Your task to perform on an android device: open device folders in google photos Image 0: 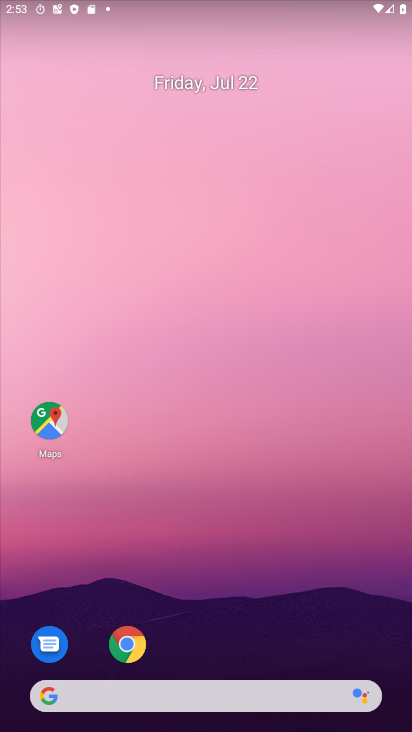
Step 0: press home button
Your task to perform on an android device: open device folders in google photos Image 1: 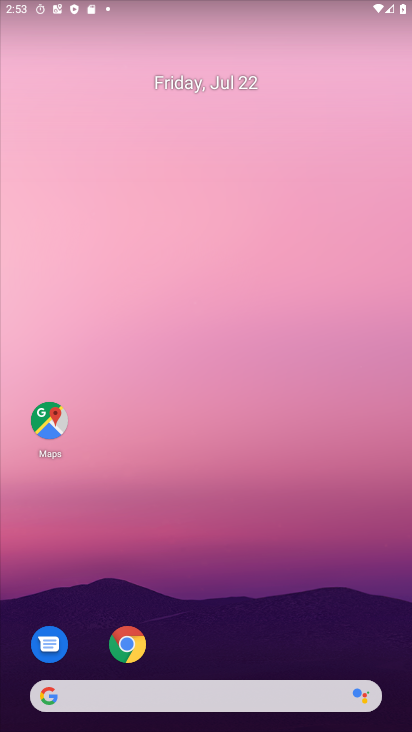
Step 1: drag from (233, 650) to (305, 96)
Your task to perform on an android device: open device folders in google photos Image 2: 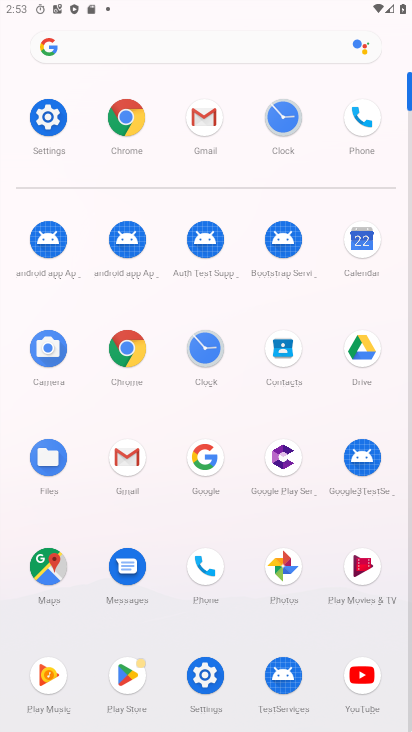
Step 2: click (281, 579)
Your task to perform on an android device: open device folders in google photos Image 3: 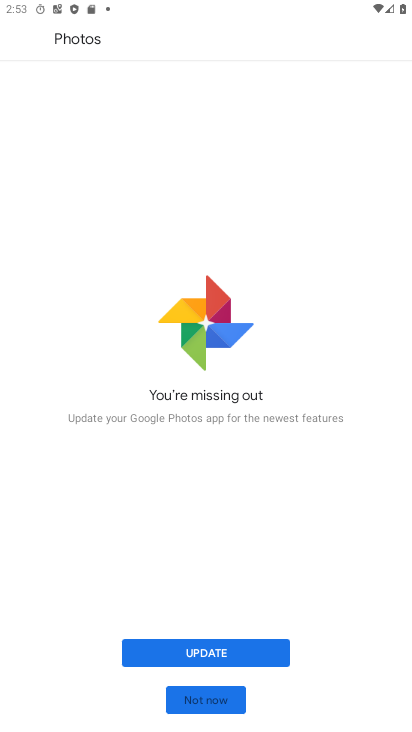
Step 3: click (196, 661)
Your task to perform on an android device: open device folders in google photos Image 4: 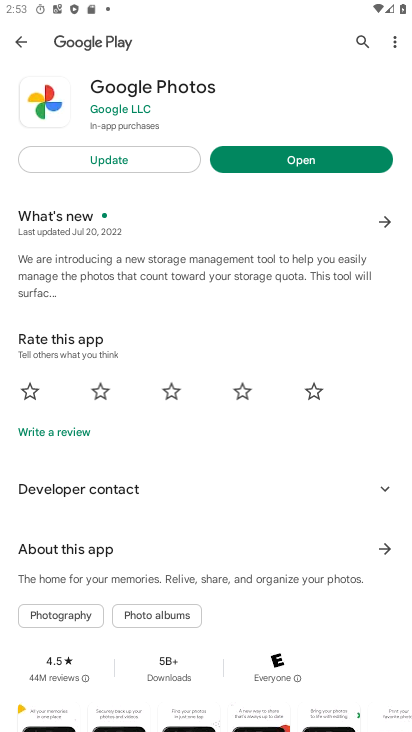
Step 4: click (99, 153)
Your task to perform on an android device: open device folders in google photos Image 5: 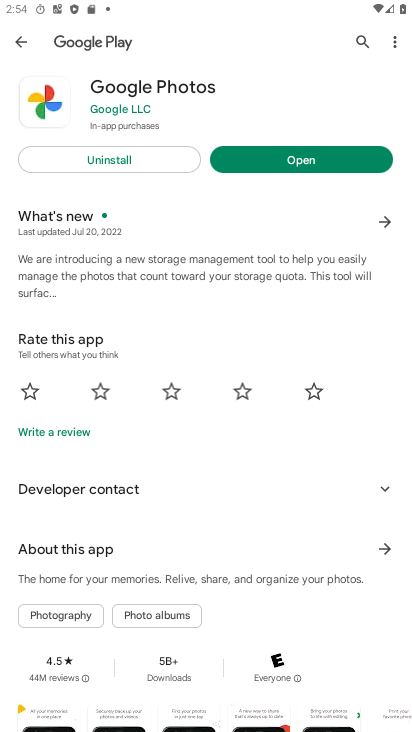
Step 5: click (253, 159)
Your task to perform on an android device: open device folders in google photos Image 6: 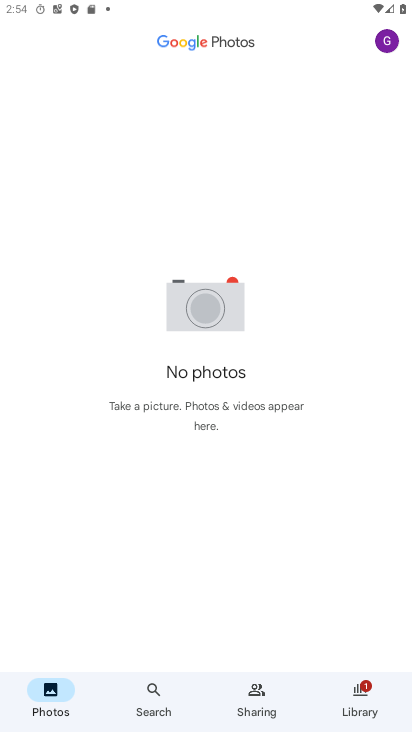
Step 6: click (359, 700)
Your task to perform on an android device: open device folders in google photos Image 7: 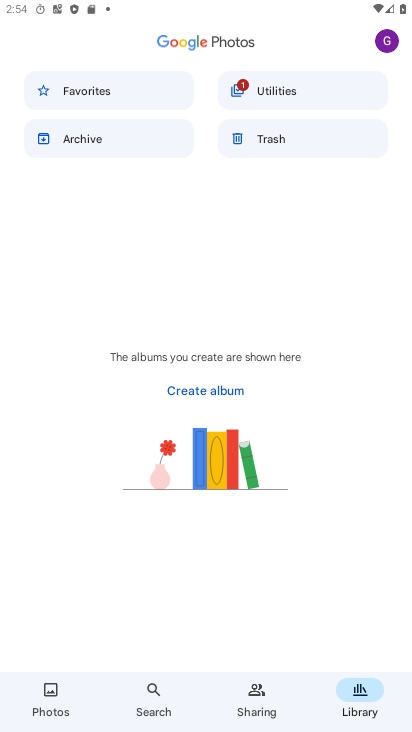
Step 7: task complete